Your task to perform on an android device: snooze an email in the gmail app Image 0: 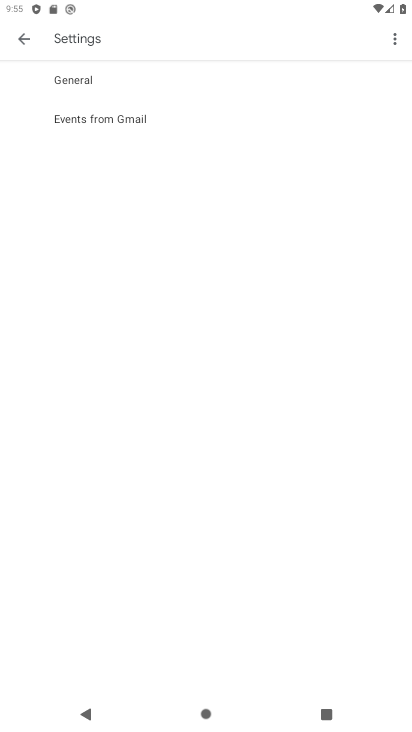
Step 0: press home button
Your task to perform on an android device: snooze an email in the gmail app Image 1: 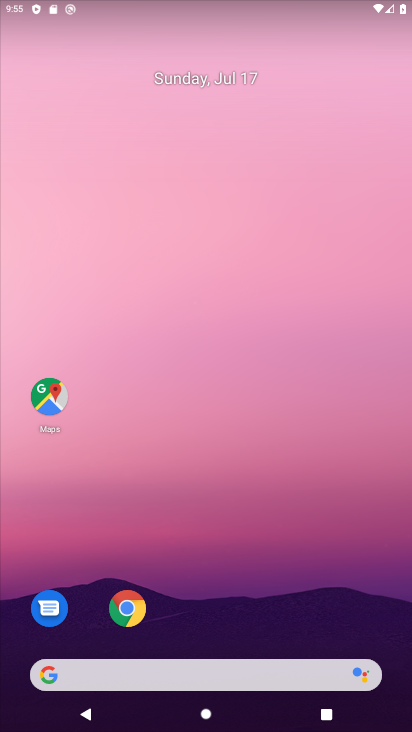
Step 1: drag from (337, 569) to (79, 4)
Your task to perform on an android device: snooze an email in the gmail app Image 2: 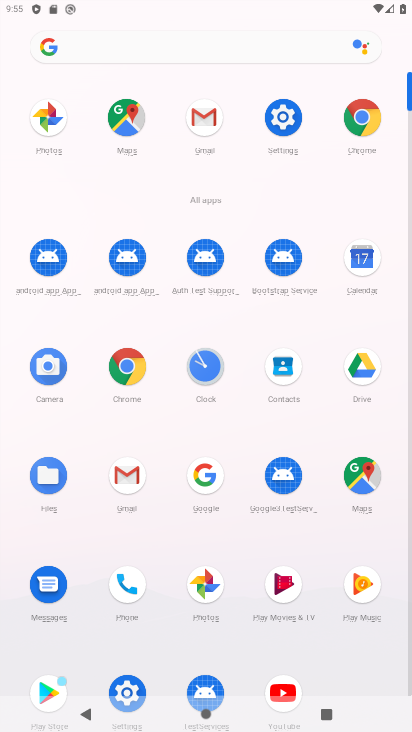
Step 2: click (192, 109)
Your task to perform on an android device: snooze an email in the gmail app Image 3: 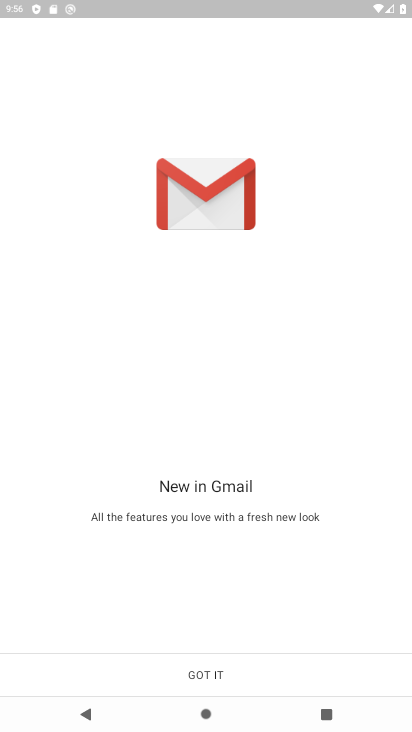
Step 3: click (246, 662)
Your task to perform on an android device: snooze an email in the gmail app Image 4: 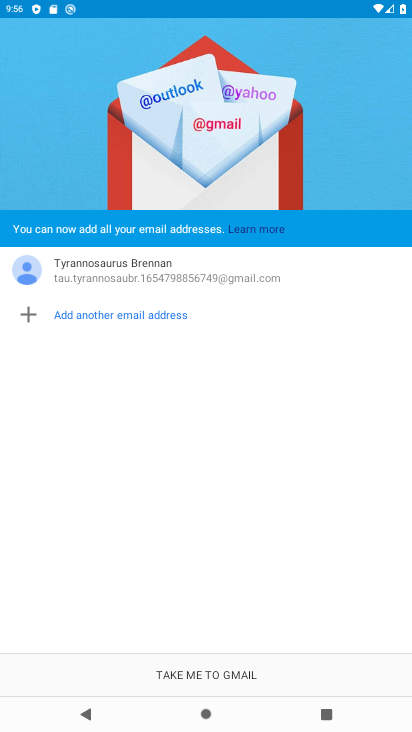
Step 4: click (249, 679)
Your task to perform on an android device: snooze an email in the gmail app Image 5: 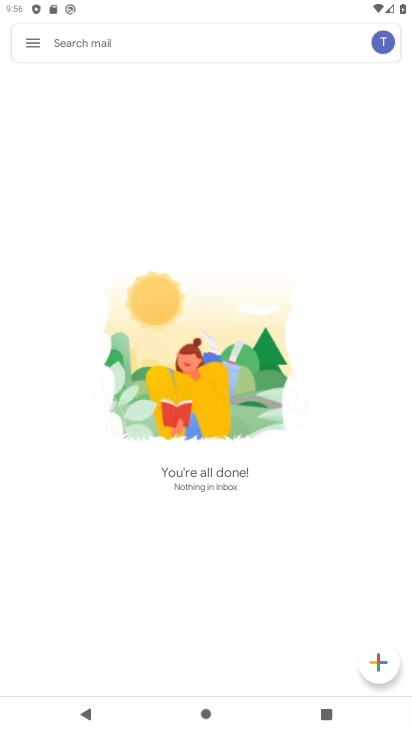
Step 5: click (33, 47)
Your task to perform on an android device: snooze an email in the gmail app Image 6: 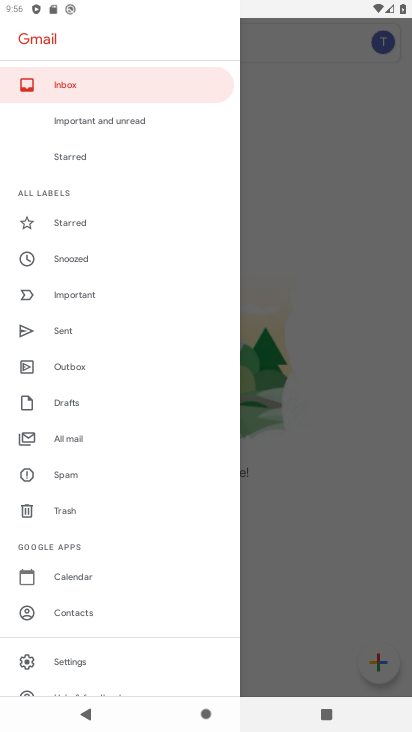
Step 6: click (31, 434)
Your task to perform on an android device: snooze an email in the gmail app Image 7: 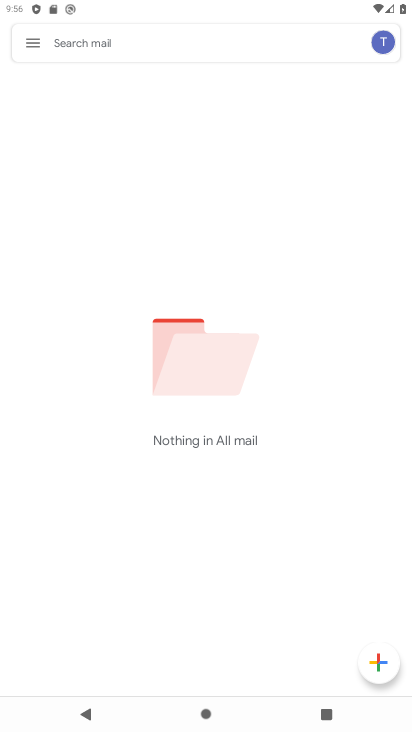
Step 7: task complete